Your task to perform on an android device: Go to sound settings Image 0: 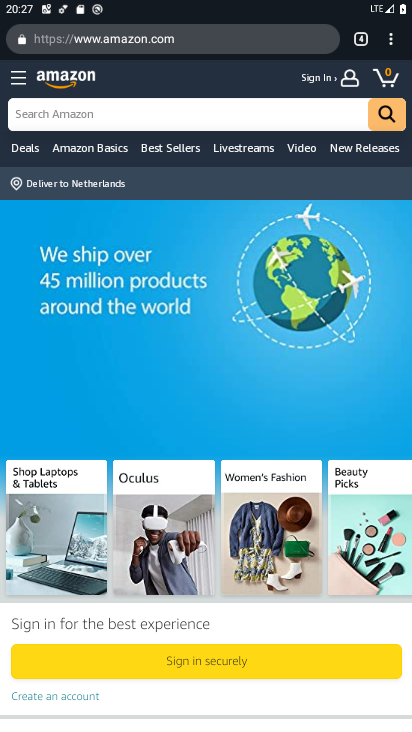
Step 0: press home button
Your task to perform on an android device: Go to sound settings Image 1: 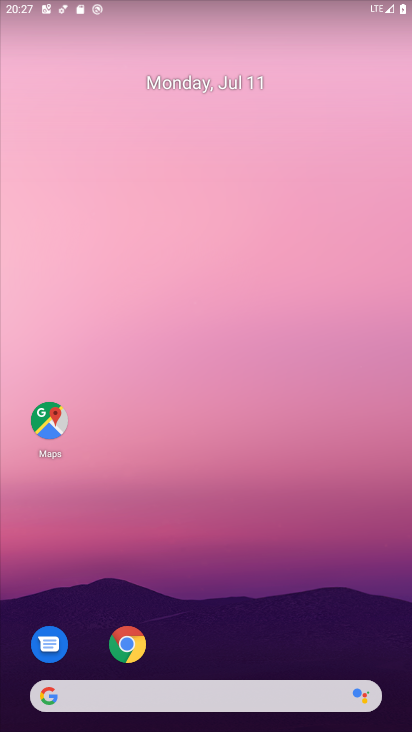
Step 1: drag from (235, 641) to (231, 525)
Your task to perform on an android device: Go to sound settings Image 2: 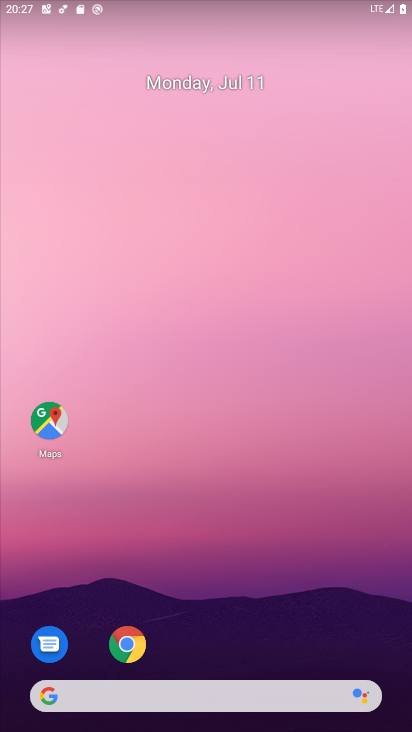
Step 2: drag from (207, 672) to (195, 467)
Your task to perform on an android device: Go to sound settings Image 3: 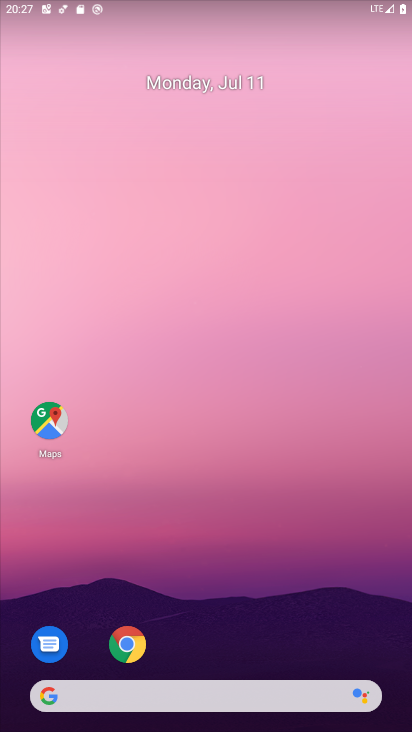
Step 3: drag from (204, 562) to (208, 142)
Your task to perform on an android device: Go to sound settings Image 4: 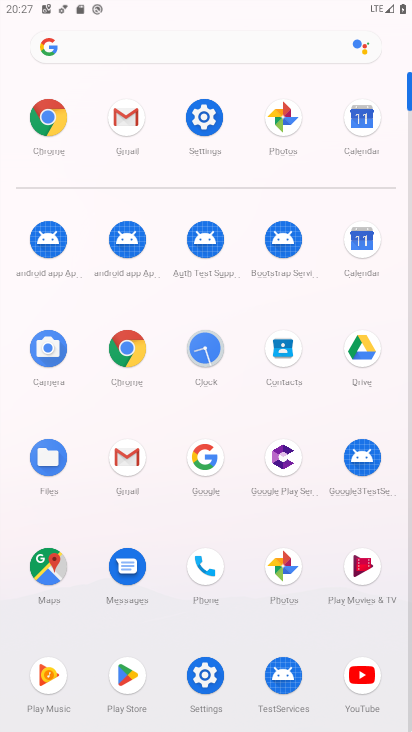
Step 4: click (194, 101)
Your task to perform on an android device: Go to sound settings Image 5: 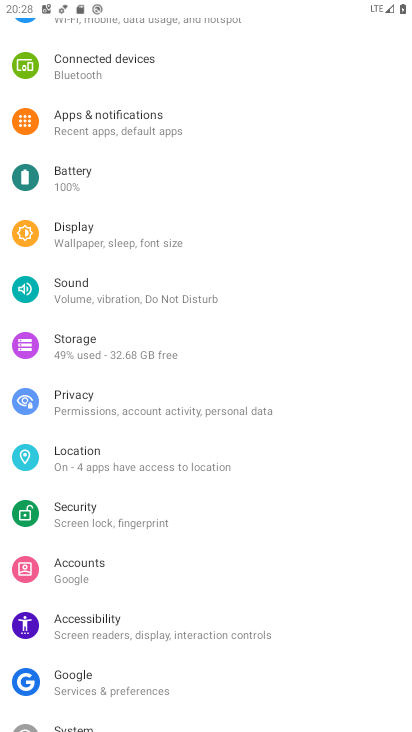
Step 5: click (106, 283)
Your task to perform on an android device: Go to sound settings Image 6: 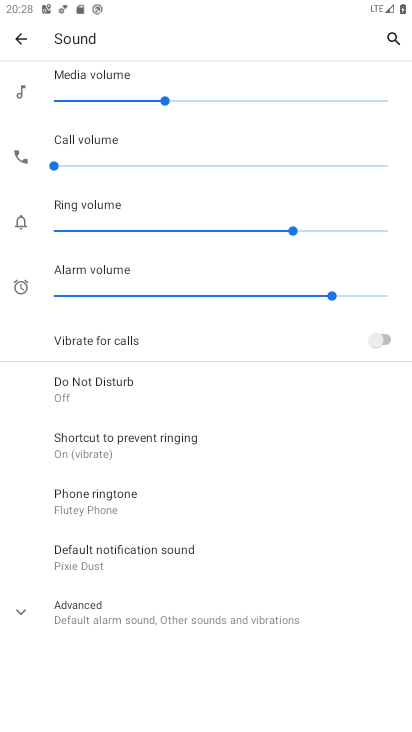
Step 6: task complete